Your task to perform on an android device: Go to internet settings Image 0: 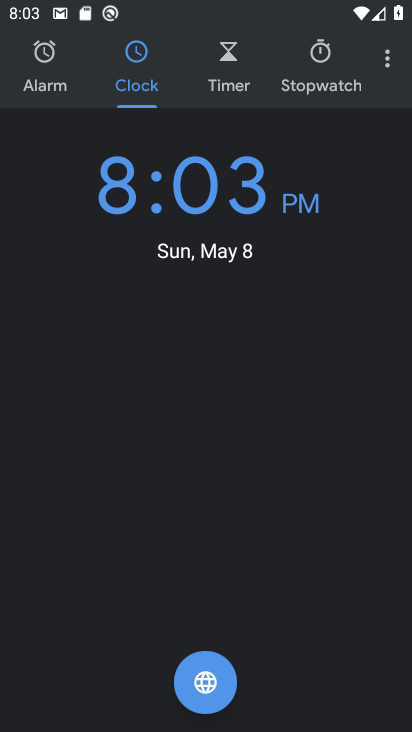
Step 0: press home button
Your task to perform on an android device: Go to internet settings Image 1: 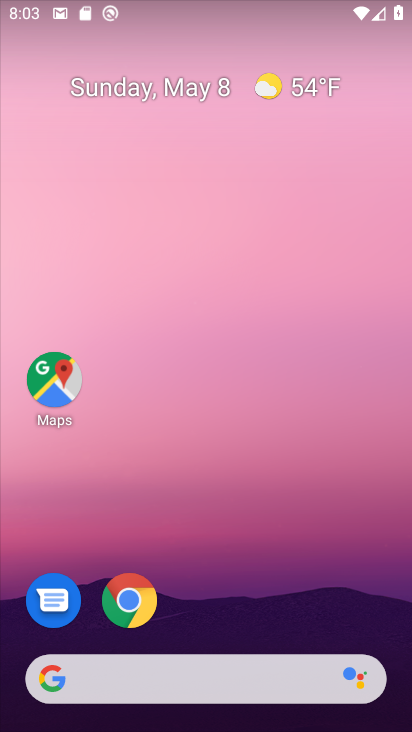
Step 1: drag from (181, 627) to (226, 24)
Your task to perform on an android device: Go to internet settings Image 2: 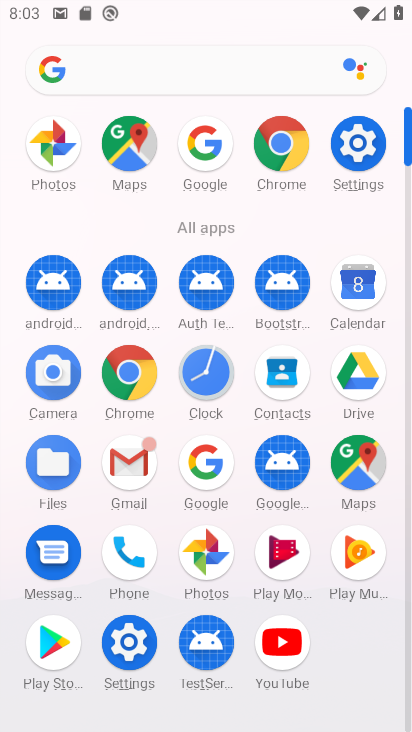
Step 2: click (376, 153)
Your task to perform on an android device: Go to internet settings Image 3: 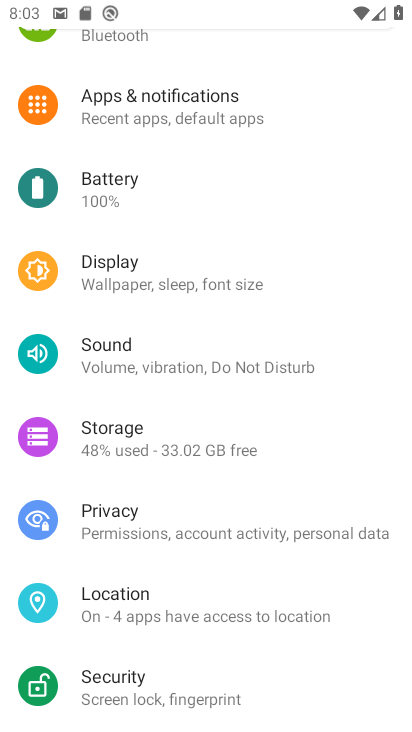
Step 3: drag from (208, 162) to (161, 323)
Your task to perform on an android device: Go to internet settings Image 4: 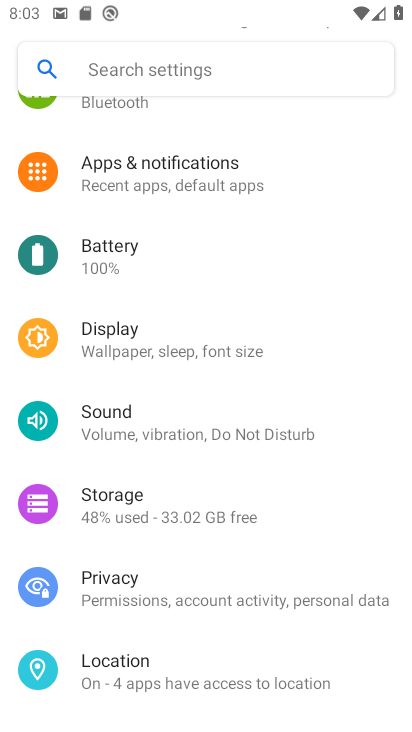
Step 4: drag from (177, 211) to (200, 434)
Your task to perform on an android device: Go to internet settings Image 5: 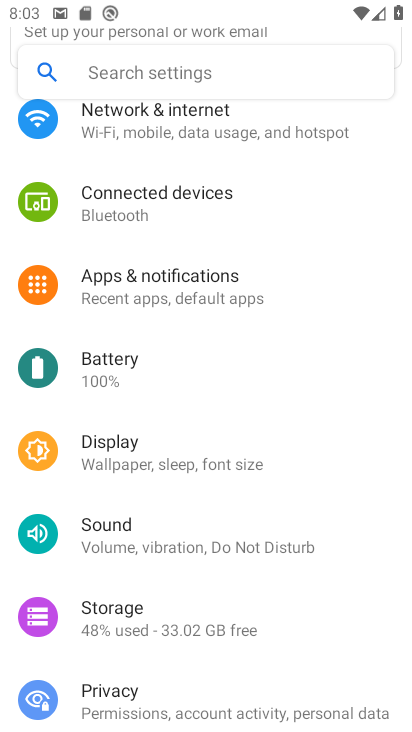
Step 5: drag from (238, 237) to (234, 534)
Your task to perform on an android device: Go to internet settings Image 6: 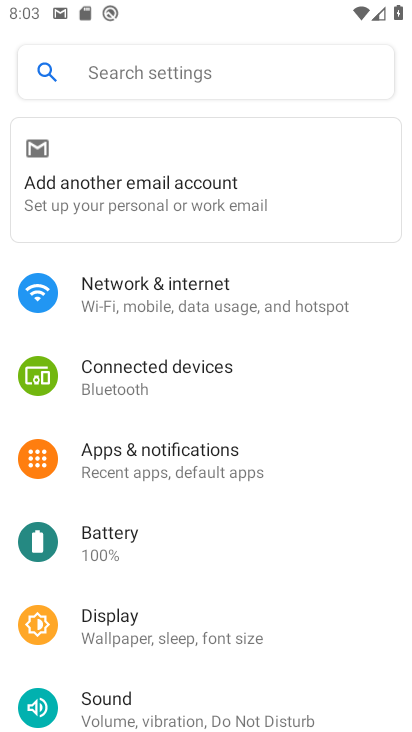
Step 6: click (230, 317)
Your task to perform on an android device: Go to internet settings Image 7: 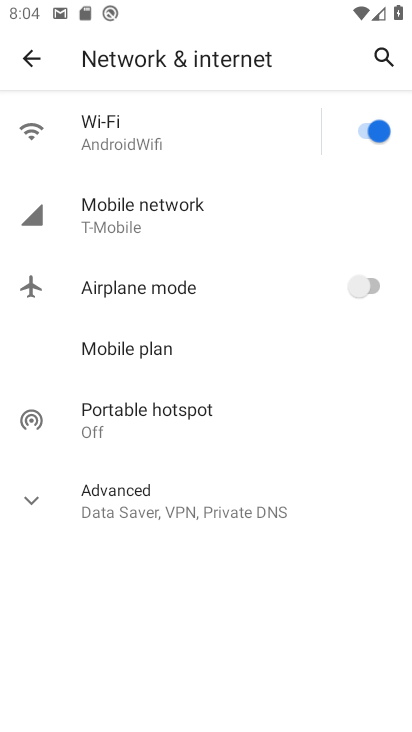
Step 7: click (211, 205)
Your task to perform on an android device: Go to internet settings Image 8: 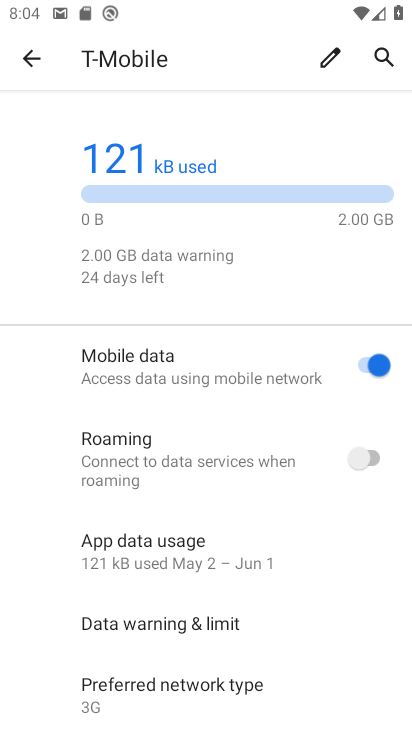
Step 8: task complete